Your task to perform on an android device: check google app version Image 0: 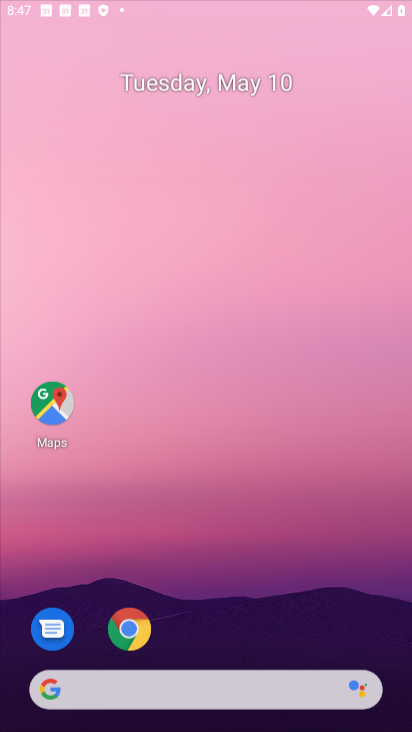
Step 0: click (286, 9)
Your task to perform on an android device: check google app version Image 1: 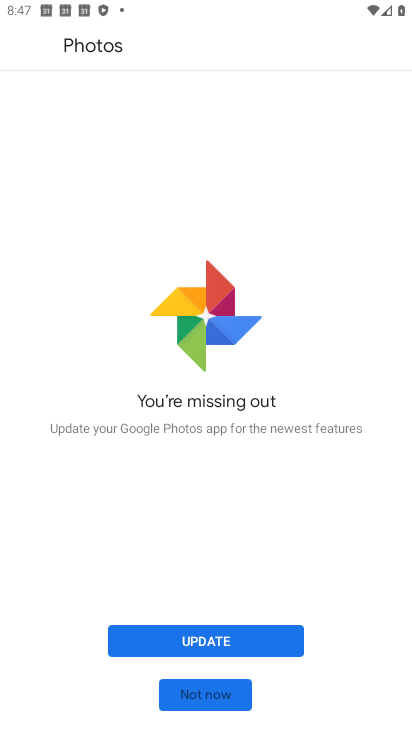
Step 1: press home button
Your task to perform on an android device: check google app version Image 2: 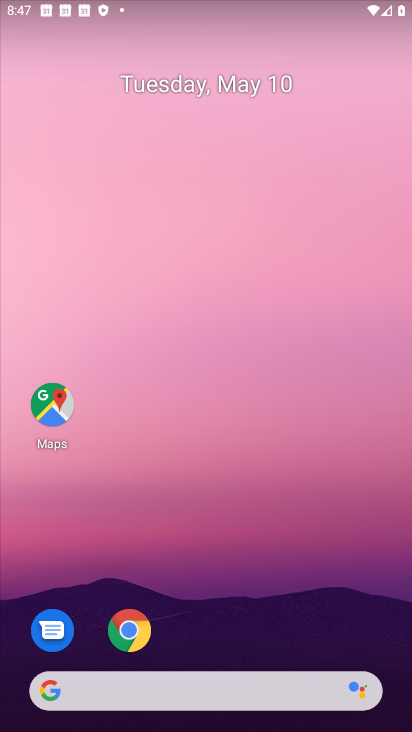
Step 2: drag from (155, 197) to (173, 87)
Your task to perform on an android device: check google app version Image 3: 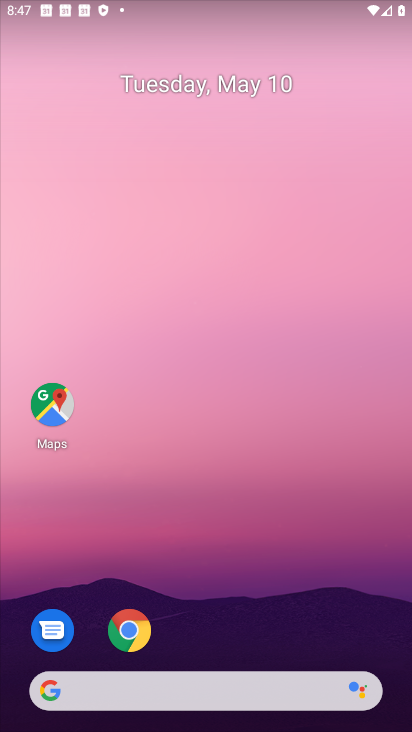
Step 3: drag from (171, 716) to (274, 113)
Your task to perform on an android device: check google app version Image 4: 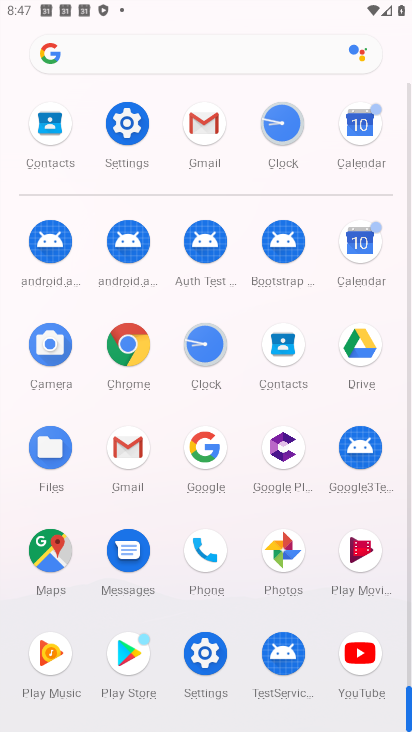
Step 4: drag from (255, 566) to (302, 246)
Your task to perform on an android device: check google app version Image 5: 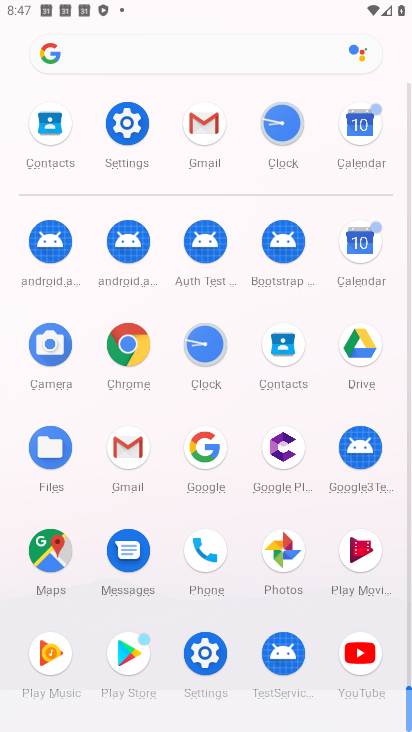
Step 5: click (192, 442)
Your task to perform on an android device: check google app version Image 6: 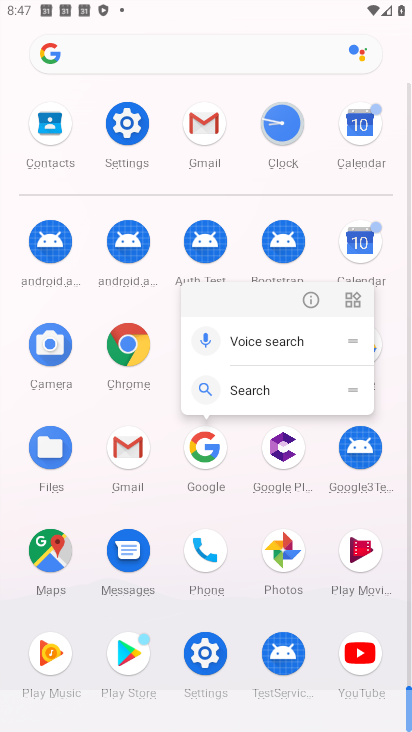
Step 6: click (312, 299)
Your task to perform on an android device: check google app version Image 7: 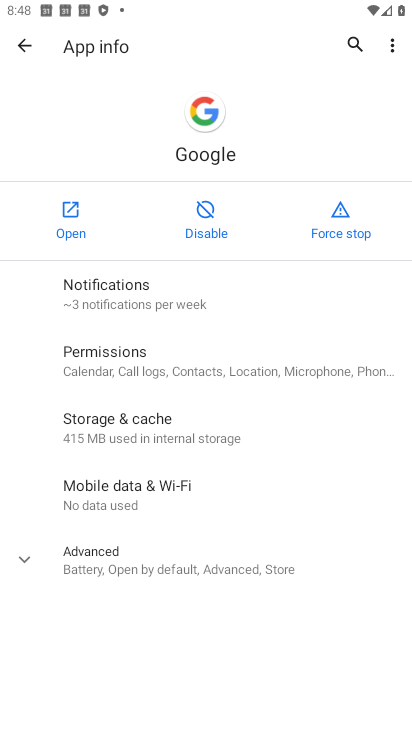
Step 7: click (136, 574)
Your task to perform on an android device: check google app version Image 8: 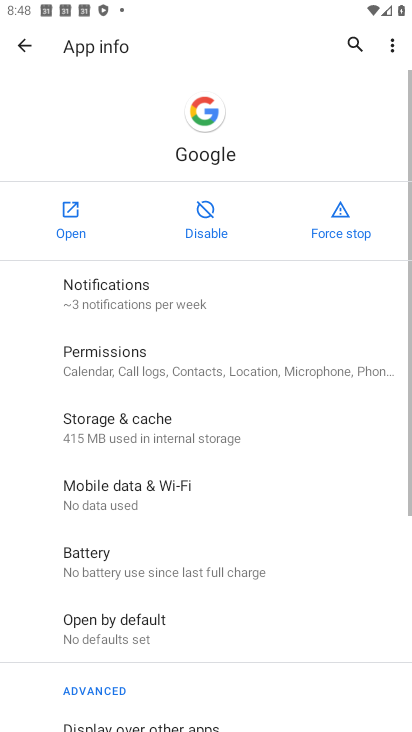
Step 8: task complete